Your task to perform on an android device: open a new tab in the chrome app Image 0: 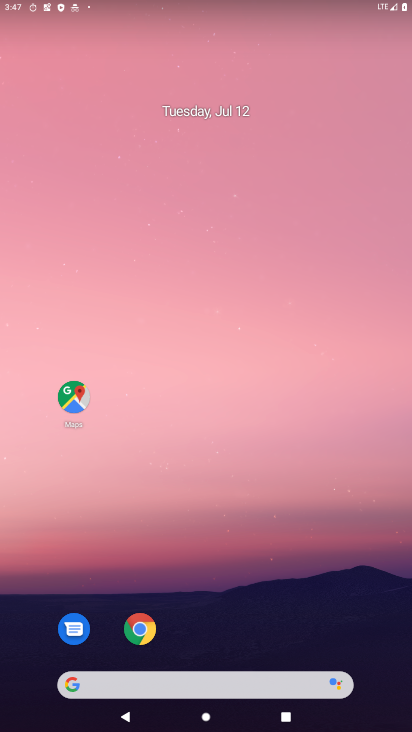
Step 0: press home button
Your task to perform on an android device: open a new tab in the chrome app Image 1: 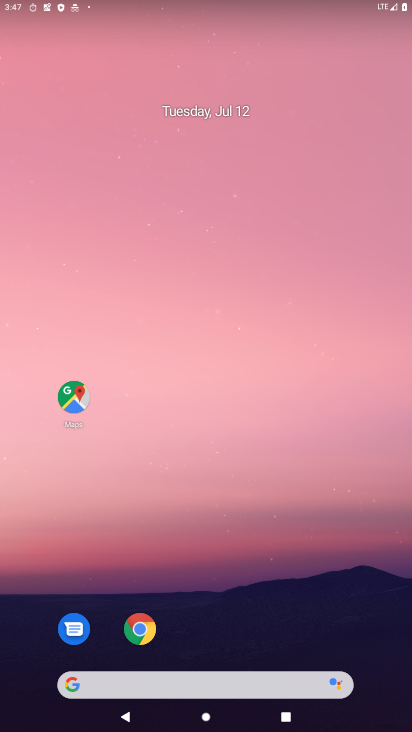
Step 1: drag from (221, 605) to (290, 219)
Your task to perform on an android device: open a new tab in the chrome app Image 2: 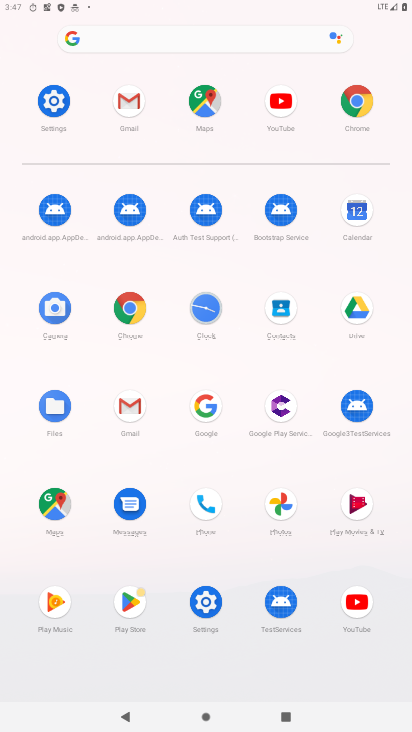
Step 2: click (127, 311)
Your task to perform on an android device: open a new tab in the chrome app Image 3: 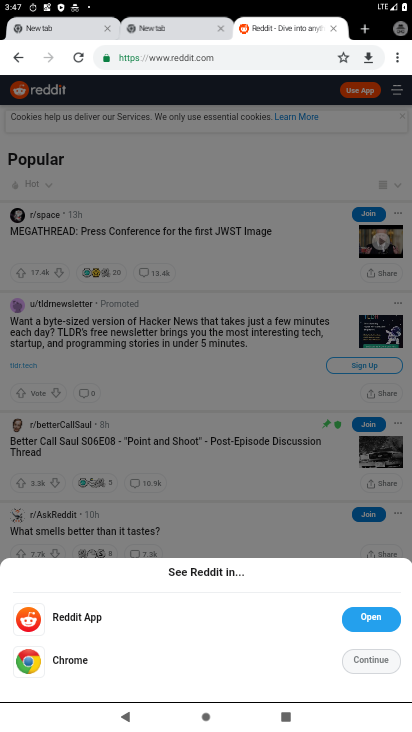
Step 3: task complete